Your task to perform on an android device: uninstall "Speedtest by Ookla" Image 0: 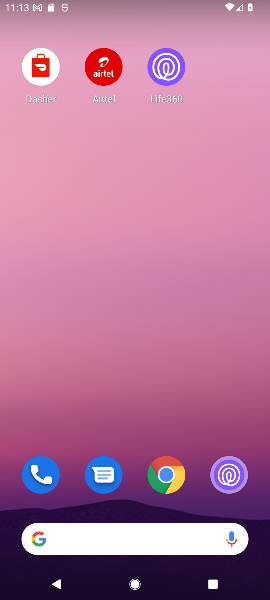
Step 0: drag from (139, 435) to (154, 160)
Your task to perform on an android device: uninstall "Speedtest by Ookla" Image 1: 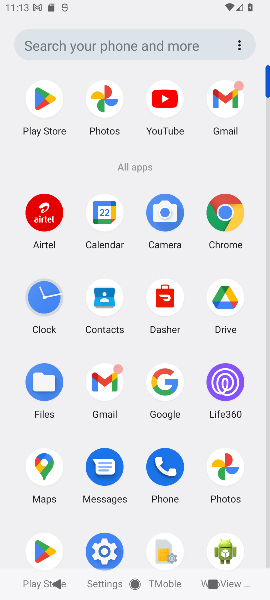
Step 1: click (39, 101)
Your task to perform on an android device: uninstall "Speedtest by Ookla" Image 2: 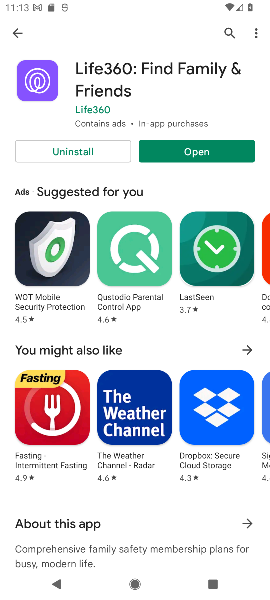
Step 2: click (12, 28)
Your task to perform on an android device: uninstall "Speedtest by Ookla" Image 3: 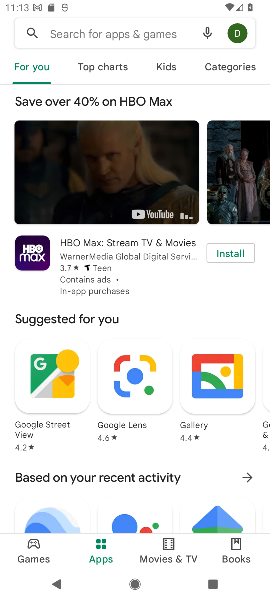
Step 3: click (76, 32)
Your task to perform on an android device: uninstall "Speedtest by Ookla" Image 4: 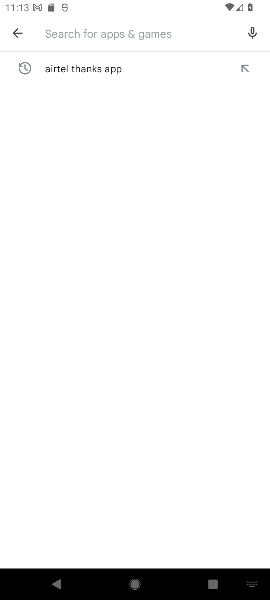
Step 4: type "Speedtest by Ookla"
Your task to perform on an android device: uninstall "Speedtest by Ookla" Image 5: 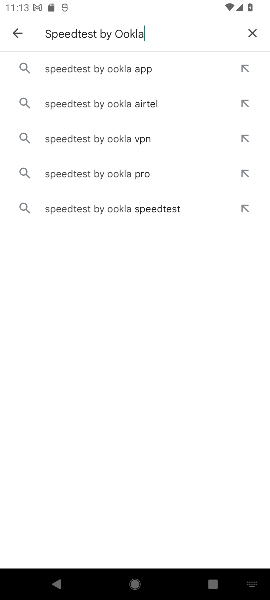
Step 5: click (89, 67)
Your task to perform on an android device: uninstall "Speedtest by Ookla" Image 6: 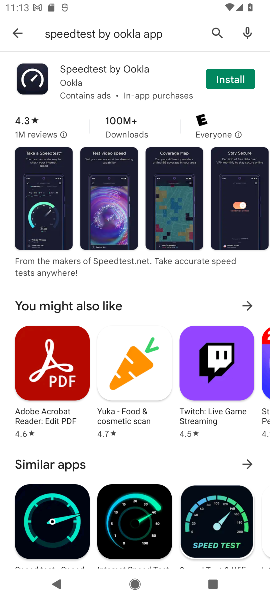
Step 6: task complete